Your task to perform on an android device: Open Google Image 0: 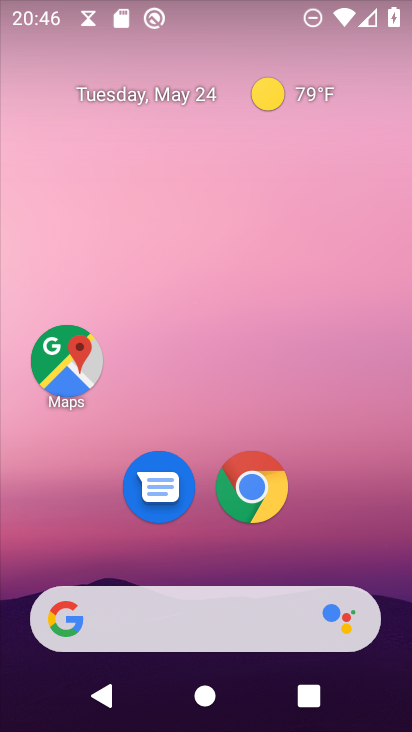
Step 0: click (195, 611)
Your task to perform on an android device: Open Google Image 1: 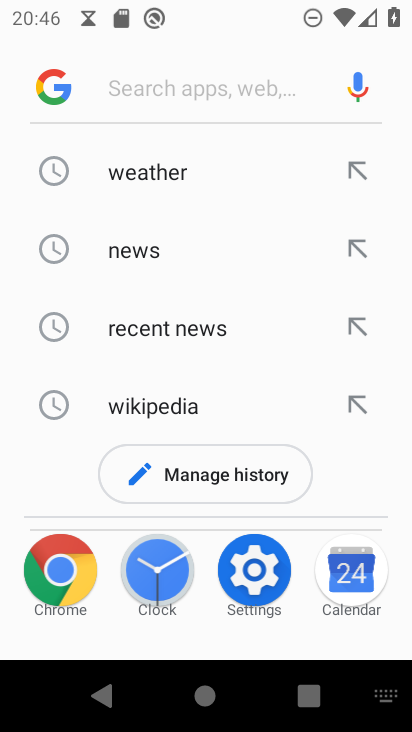
Step 1: click (65, 90)
Your task to perform on an android device: Open Google Image 2: 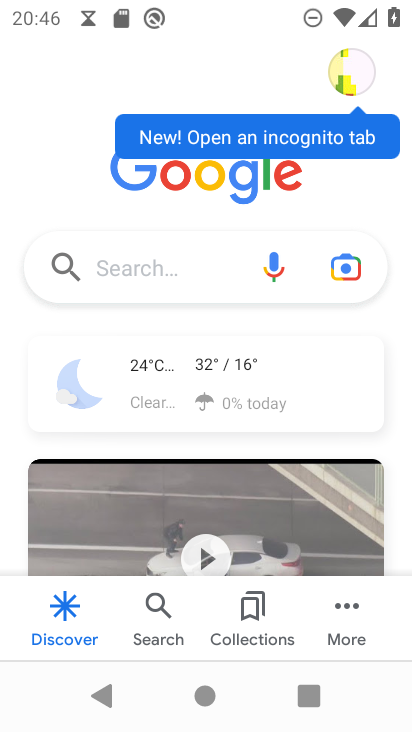
Step 2: task complete